Your task to perform on an android device: Go to Yahoo.com Image 0: 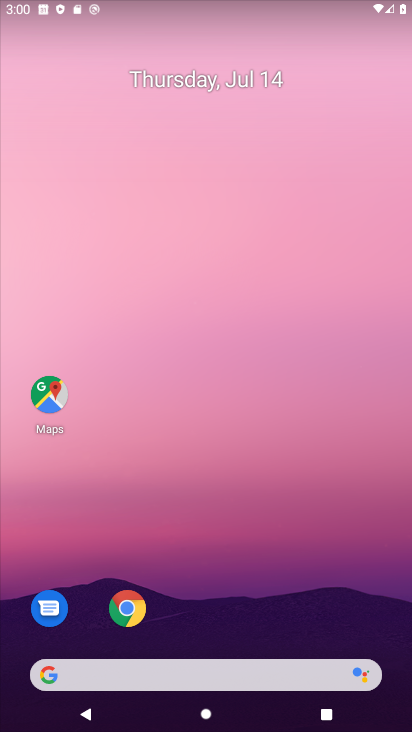
Step 0: click (125, 606)
Your task to perform on an android device: Go to Yahoo.com Image 1: 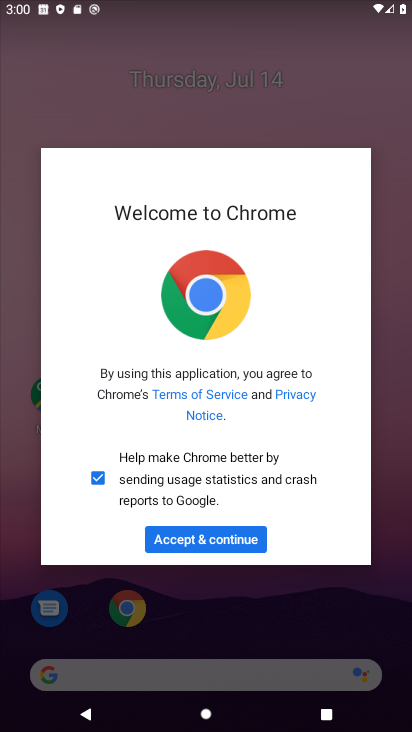
Step 1: click (224, 550)
Your task to perform on an android device: Go to Yahoo.com Image 2: 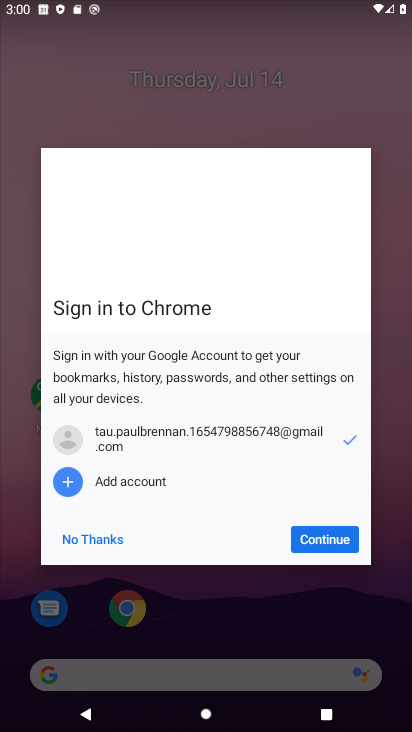
Step 2: click (234, 539)
Your task to perform on an android device: Go to Yahoo.com Image 3: 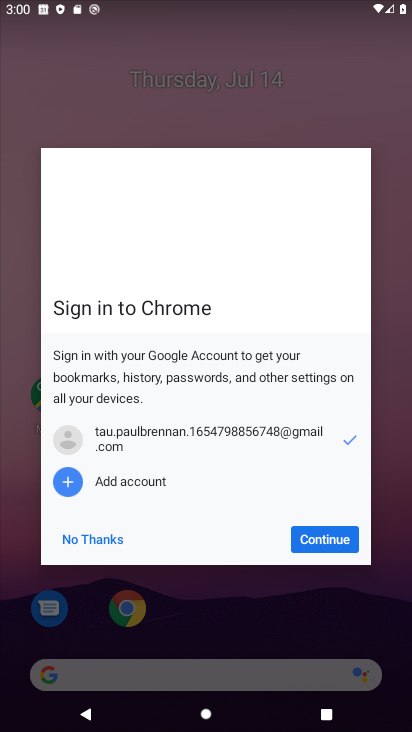
Step 3: click (338, 538)
Your task to perform on an android device: Go to Yahoo.com Image 4: 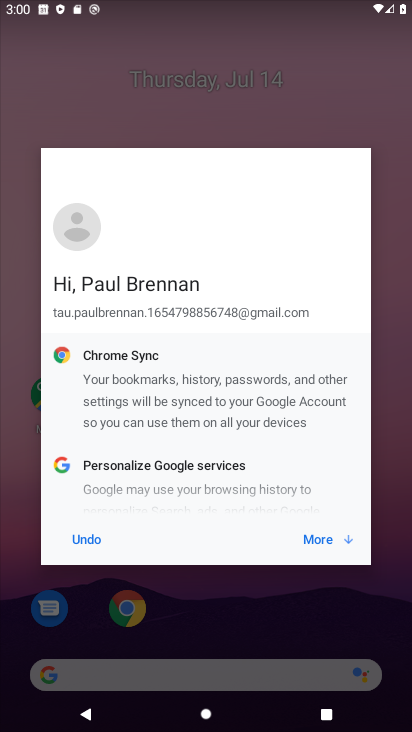
Step 4: click (338, 538)
Your task to perform on an android device: Go to Yahoo.com Image 5: 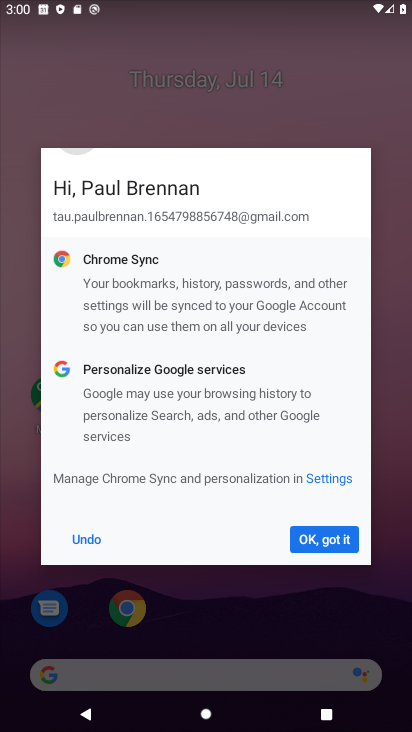
Step 5: click (338, 538)
Your task to perform on an android device: Go to Yahoo.com Image 6: 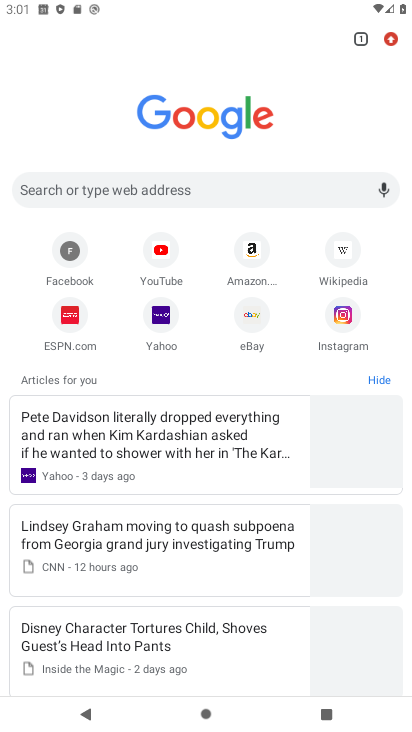
Step 6: click (167, 326)
Your task to perform on an android device: Go to Yahoo.com Image 7: 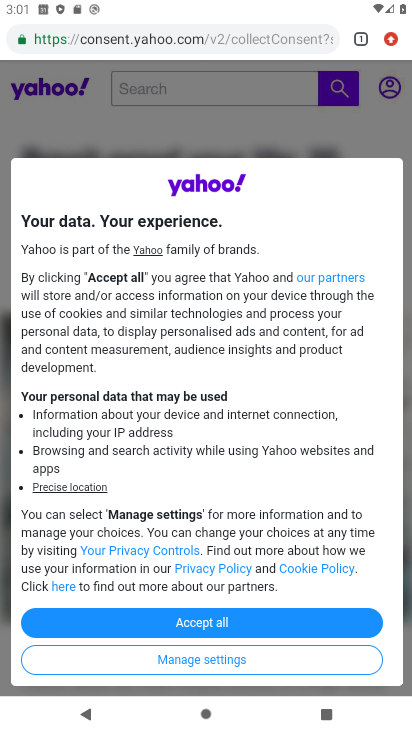
Step 7: task complete